Your task to perform on an android device: uninstall "Google Home" Image 0: 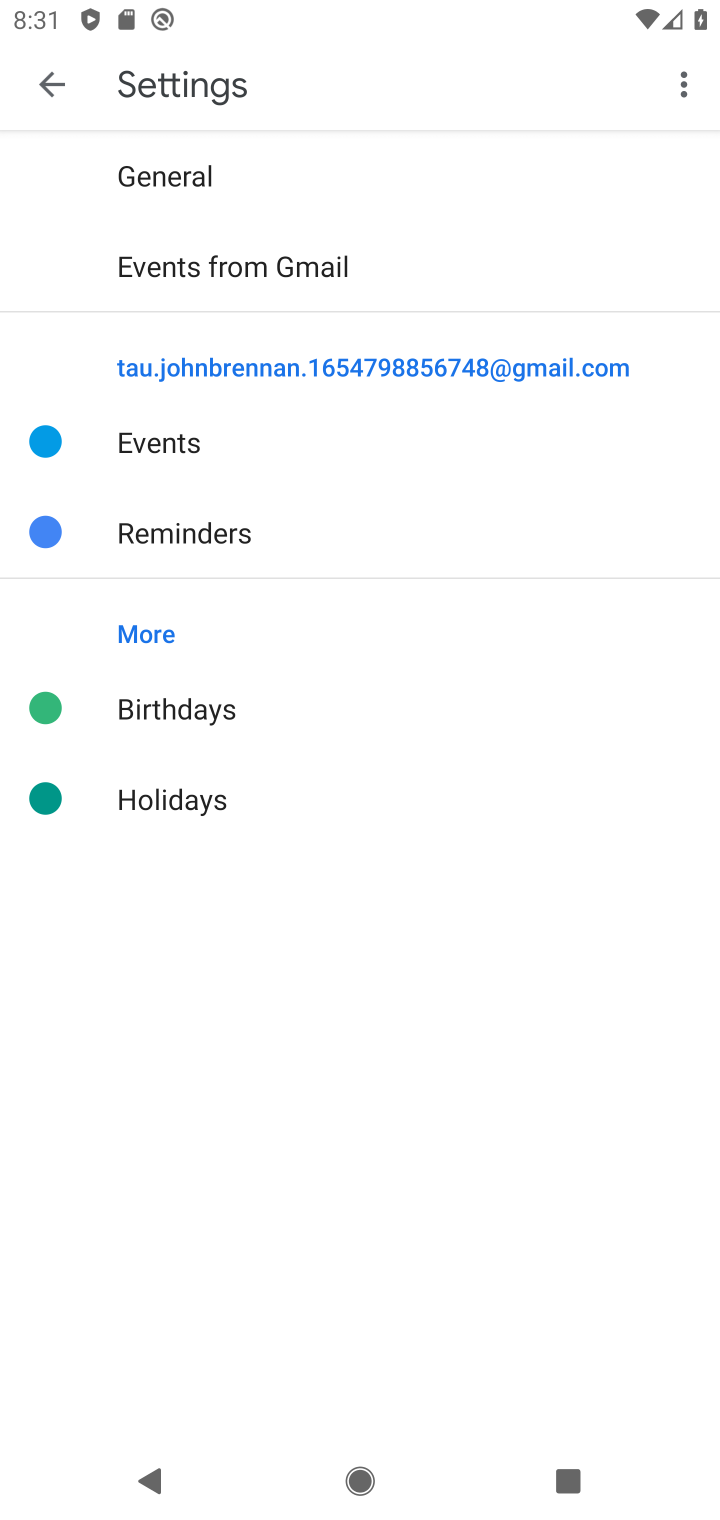
Step 0: press home button
Your task to perform on an android device: uninstall "Google Home" Image 1: 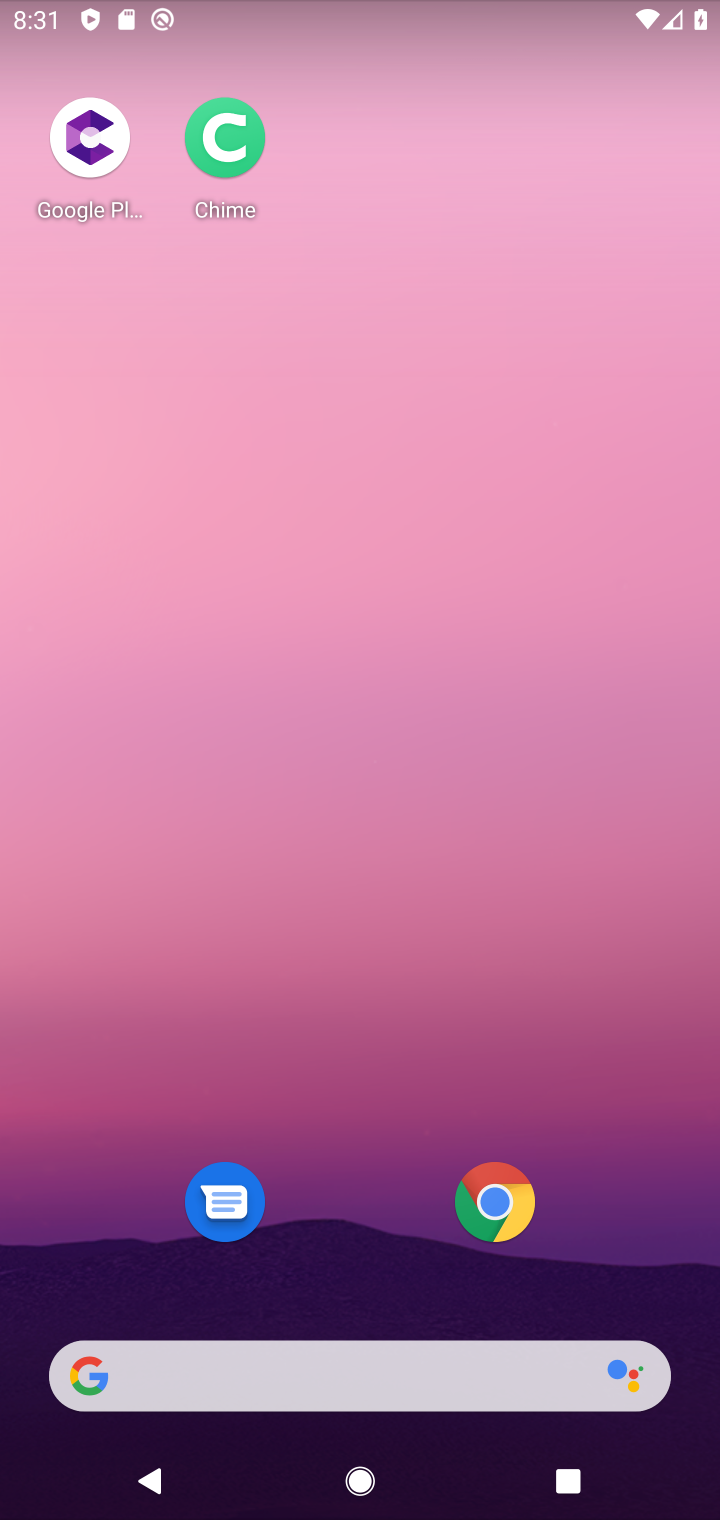
Step 1: drag from (367, 1127) to (302, 32)
Your task to perform on an android device: uninstall "Google Home" Image 2: 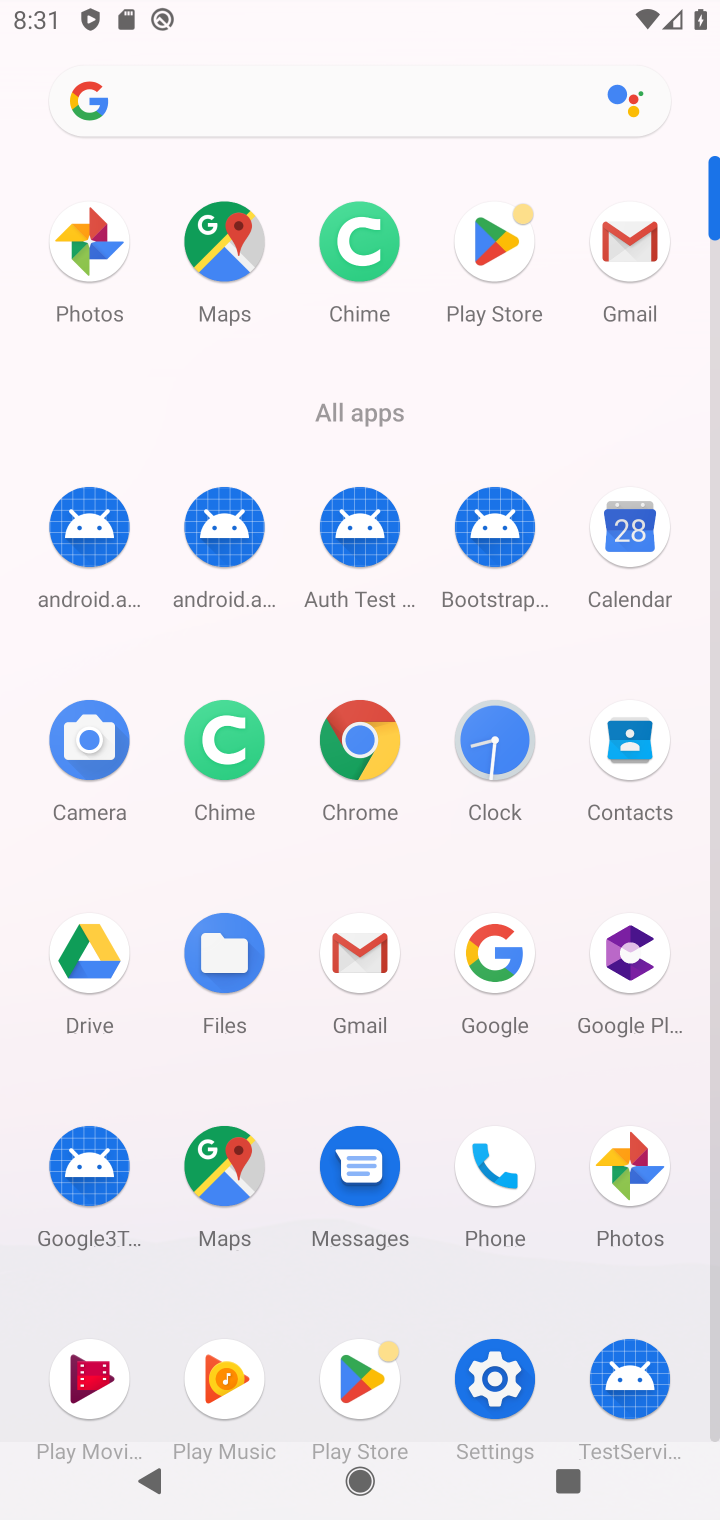
Step 2: click (501, 251)
Your task to perform on an android device: uninstall "Google Home" Image 3: 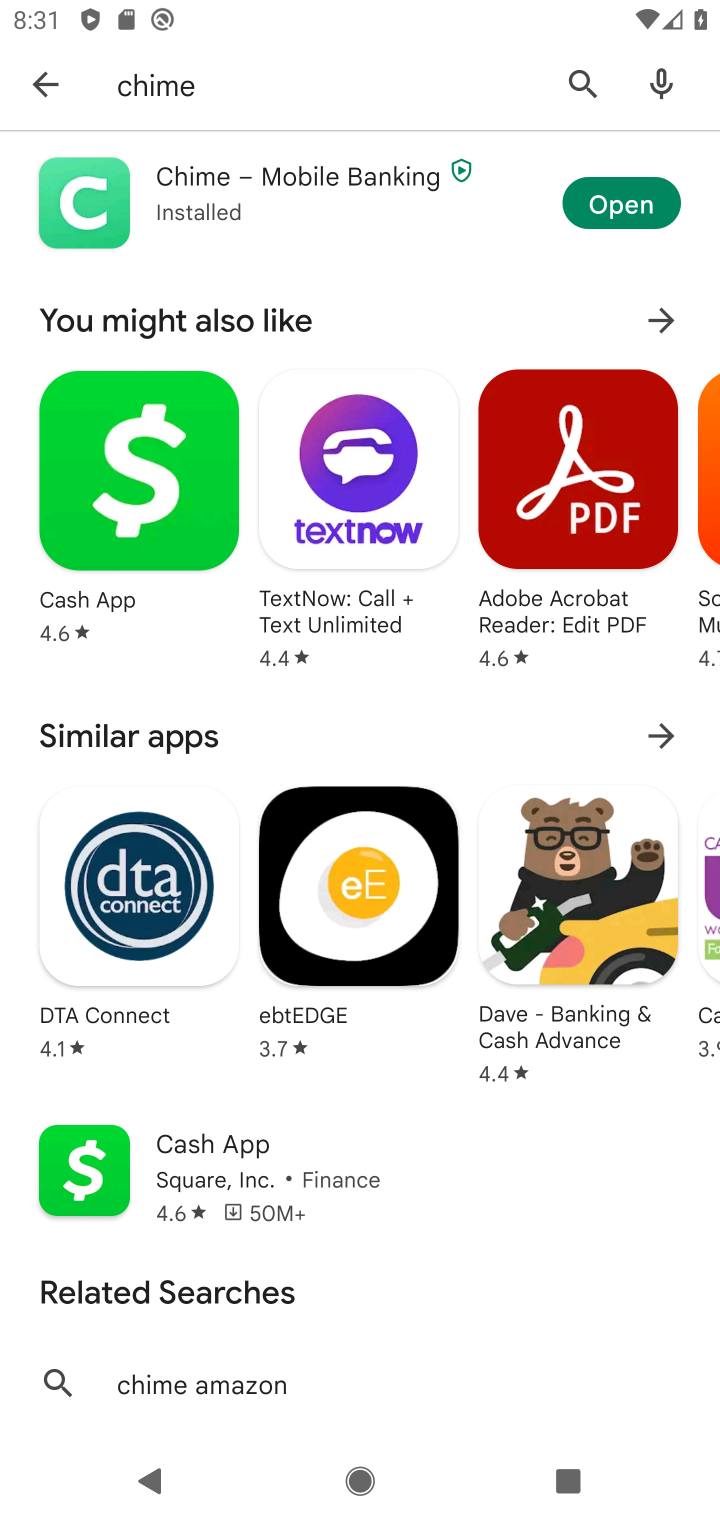
Step 3: click (574, 69)
Your task to perform on an android device: uninstall "Google Home" Image 4: 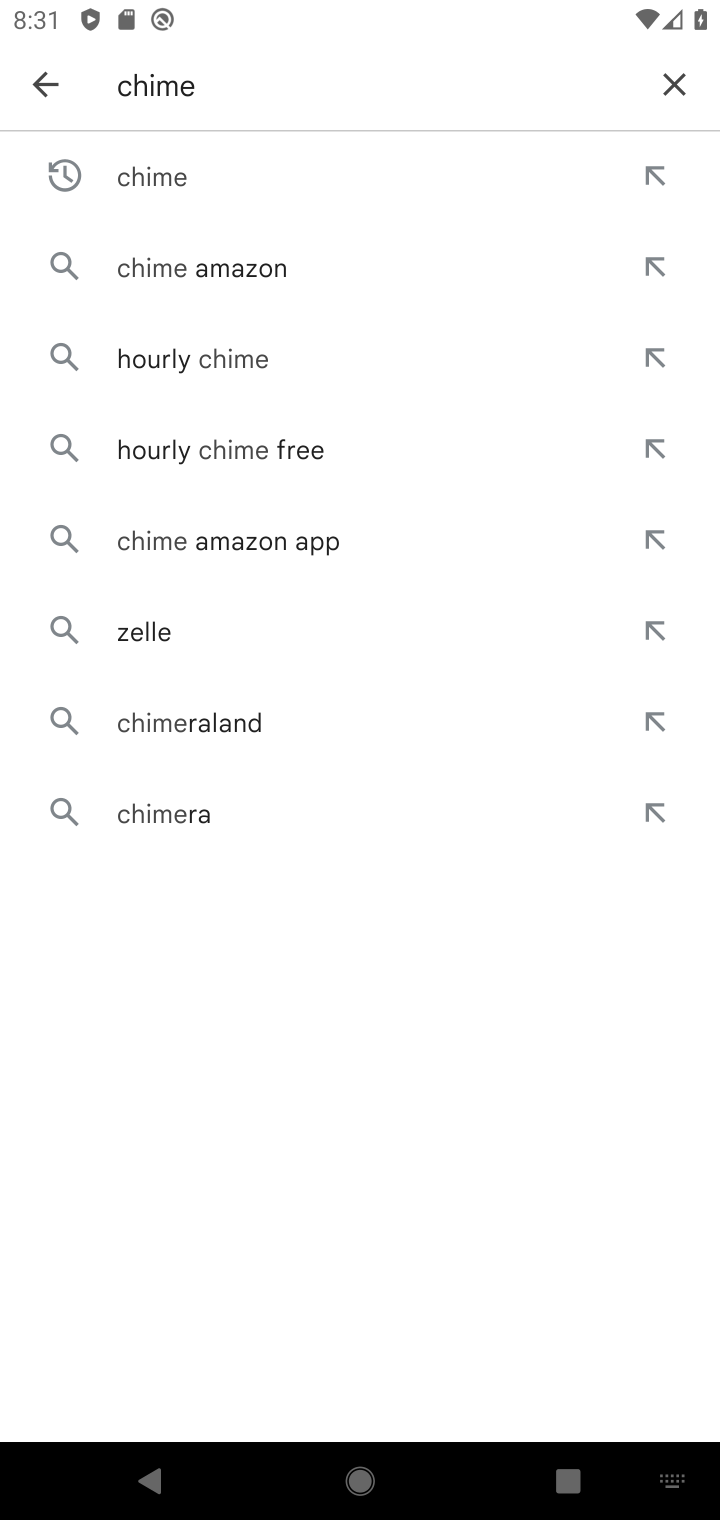
Step 4: click (665, 80)
Your task to perform on an android device: uninstall "Google Home" Image 5: 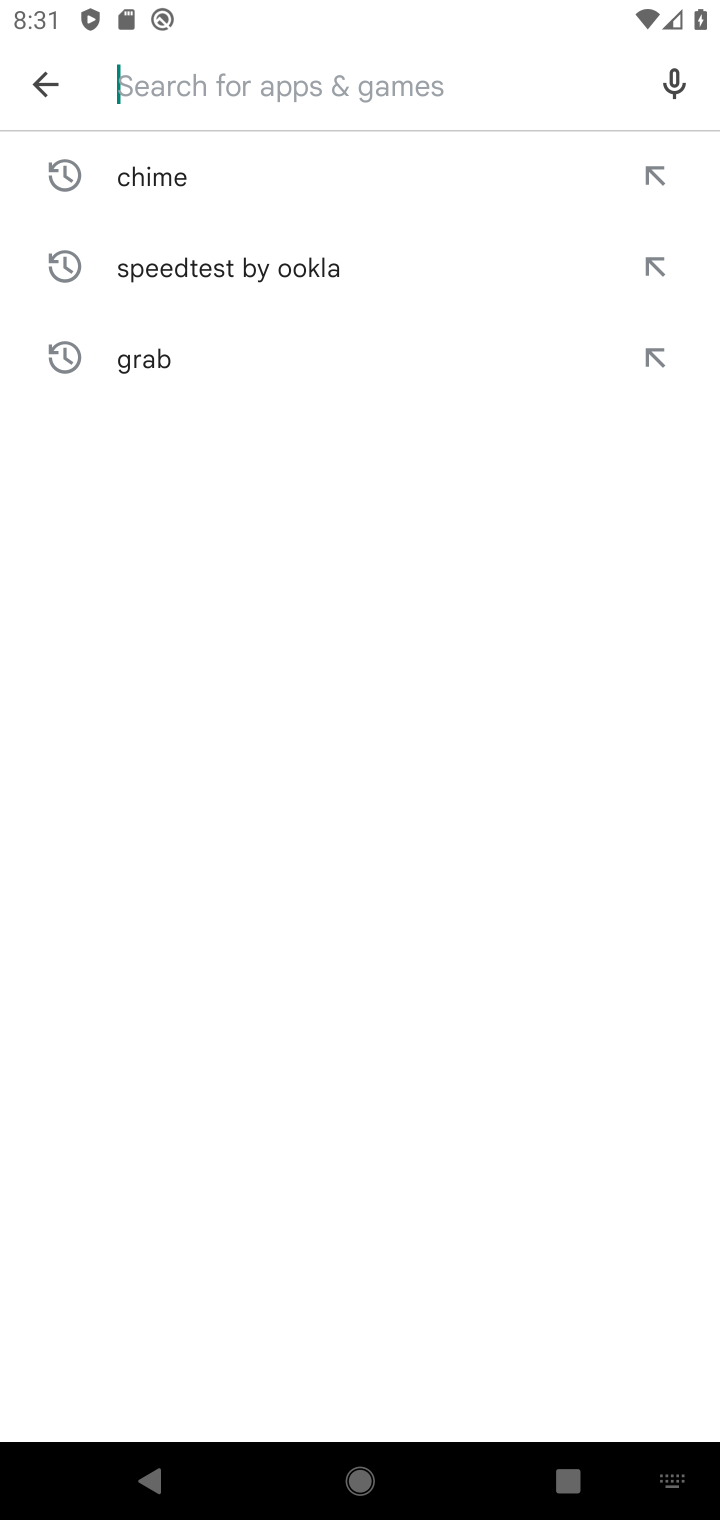
Step 5: click (376, 76)
Your task to perform on an android device: uninstall "Google Home" Image 6: 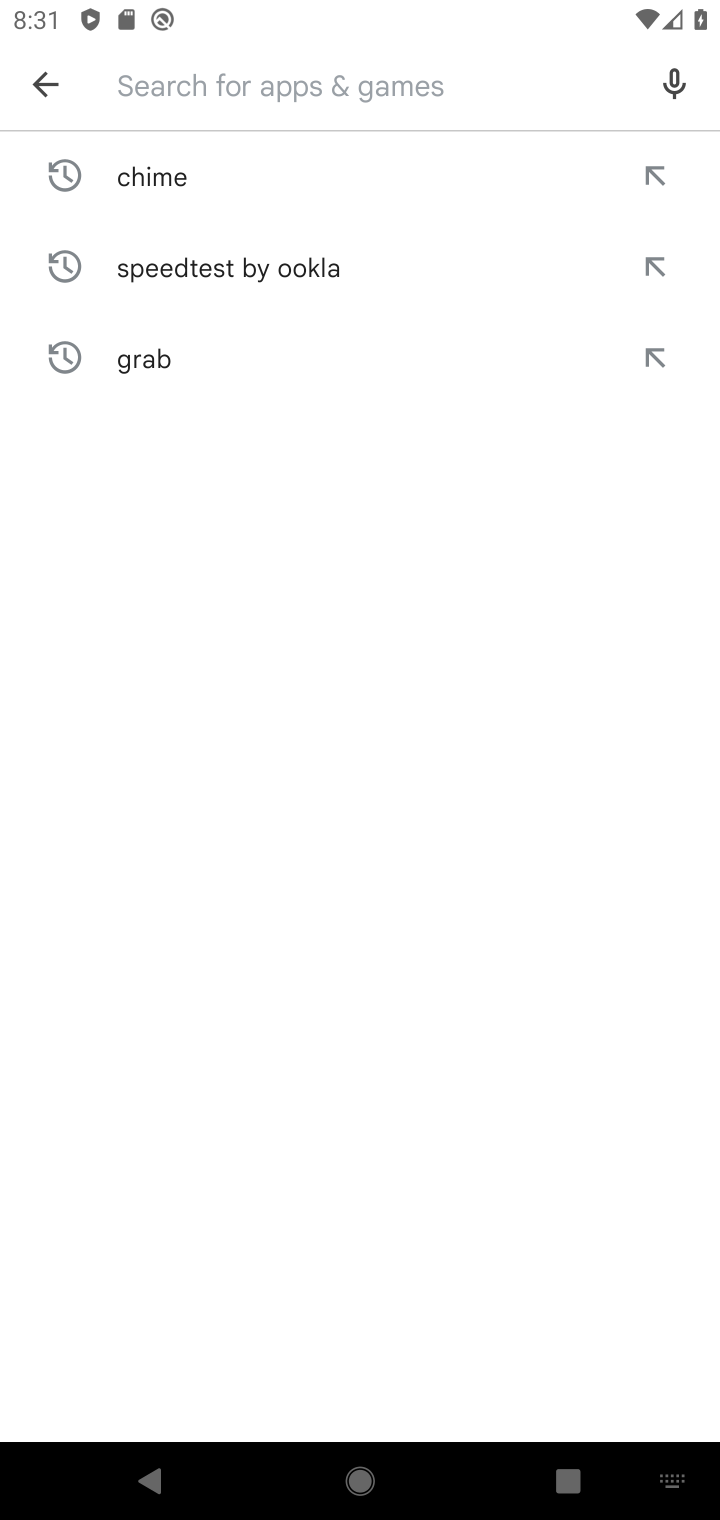
Step 6: type "Google home"
Your task to perform on an android device: uninstall "Google Home" Image 7: 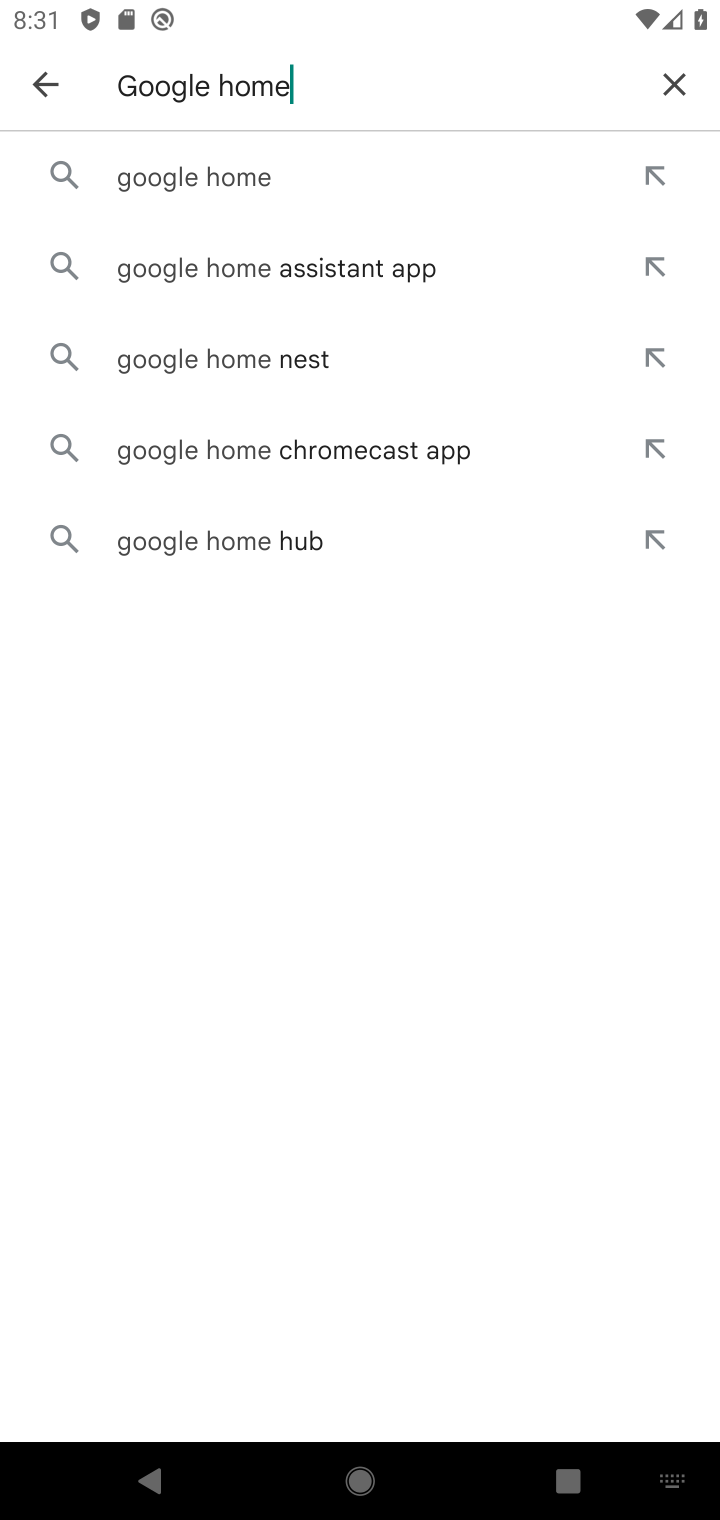
Step 7: click (195, 186)
Your task to perform on an android device: uninstall "Google Home" Image 8: 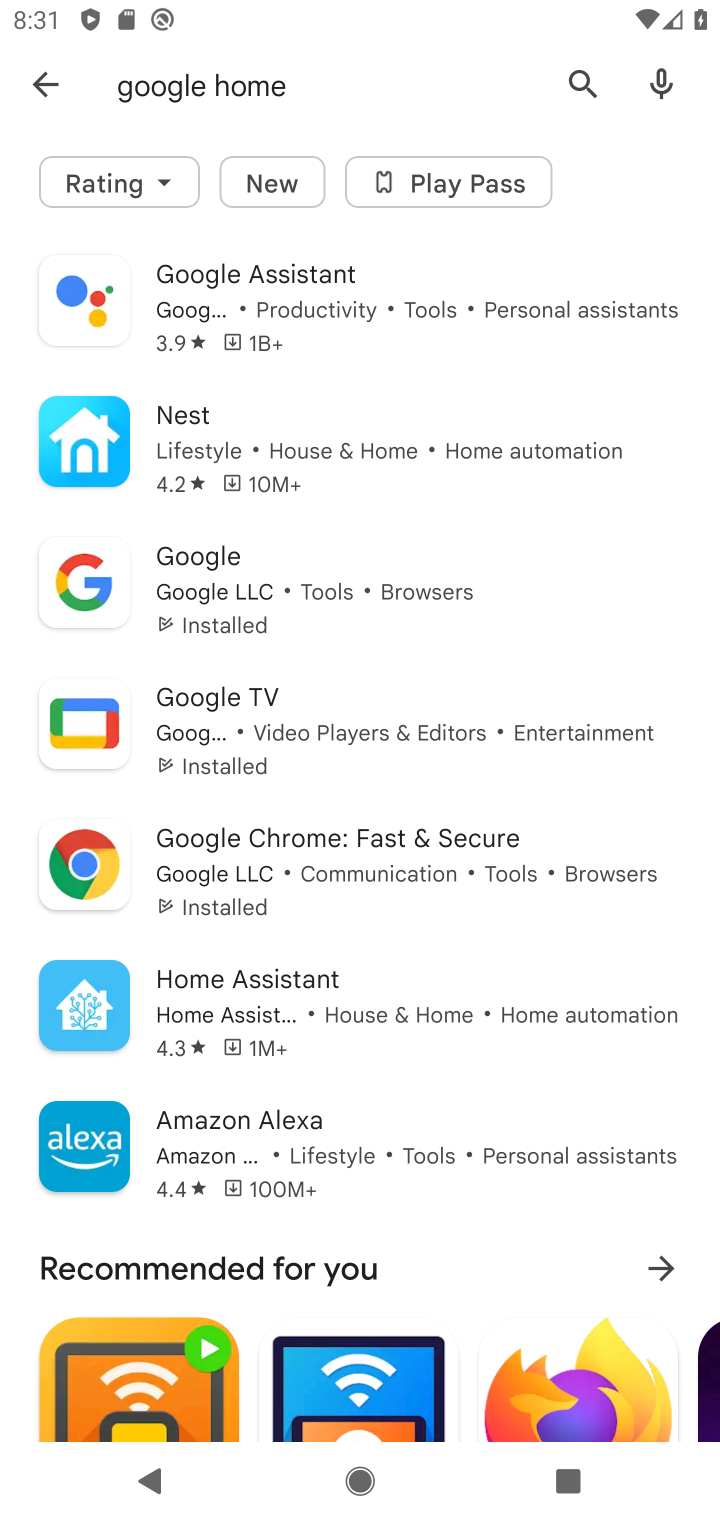
Step 8: click (239, 296)
Your task to perform on an android device: uninstall "Google Home" Image 9: 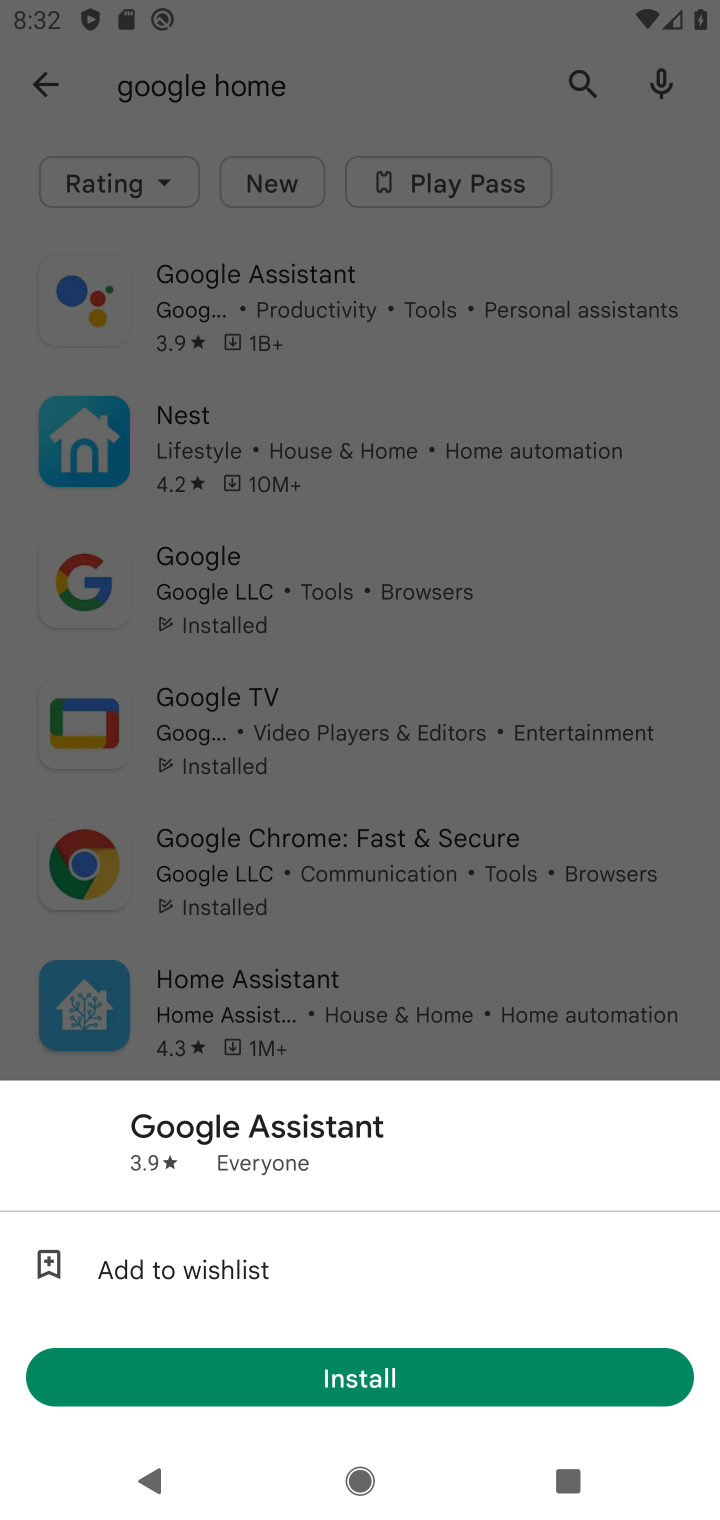
Step 9: click (239, 296)
Your task to perform on an android device: uninstall "Google Home" Image 10: 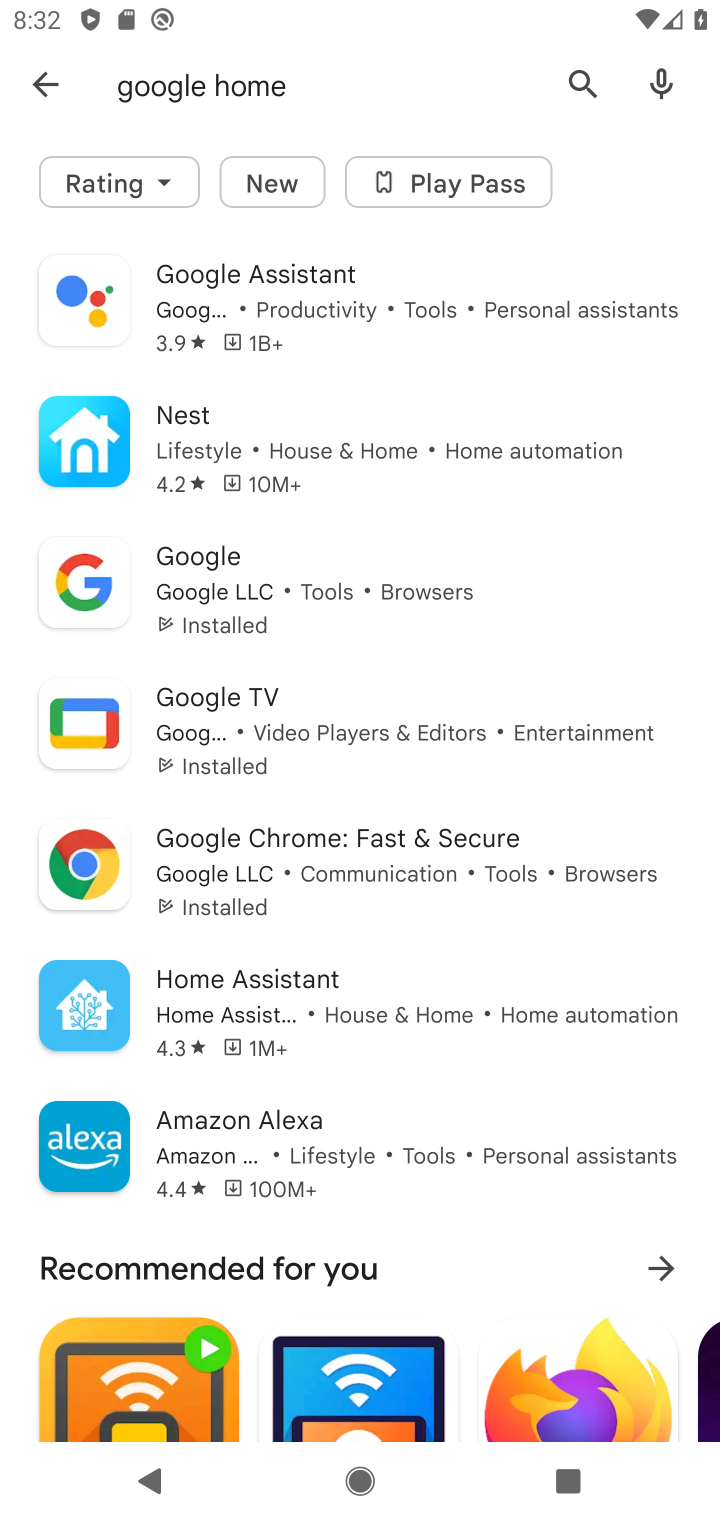
Step 10: task complete